Your task to perform on an android device: find which apps use the phone's location Image 0: 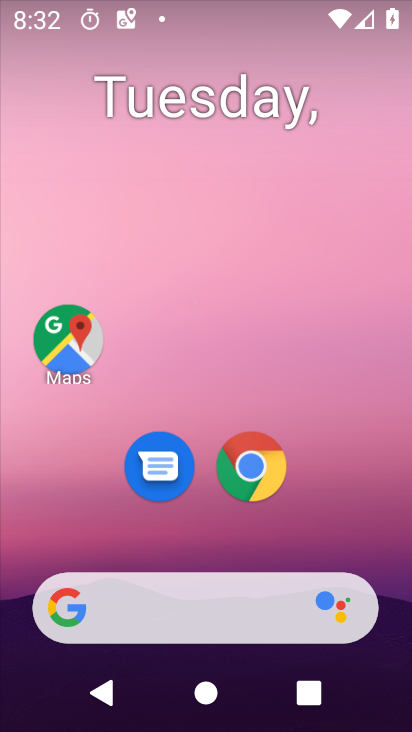
Step 0: drag from (196, 530) to (231, 77)
Your task to perform on an android device: find which apps use the phone's location Image 1: 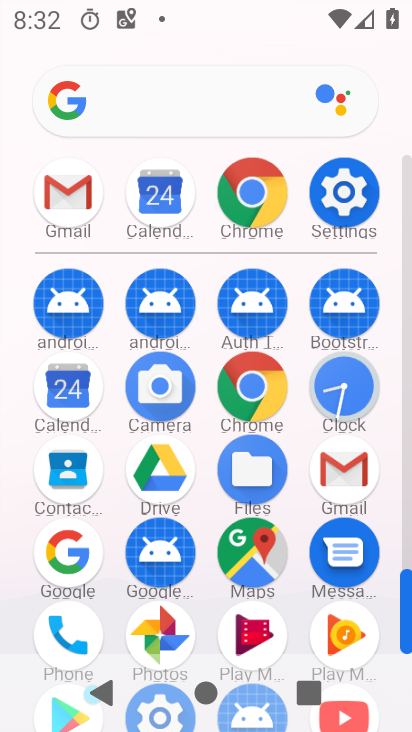
Step 1: click (336, 206)
Your task to perform on an android device: find which apps use the phone's location Image 2: 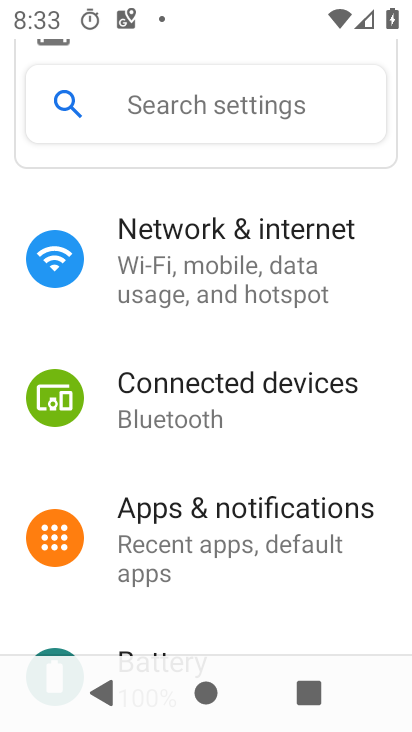
Step 2: drag from (291, 542) to (336, 153)
Your task to perform on an android device: find which apps use the phone's location Image 3: 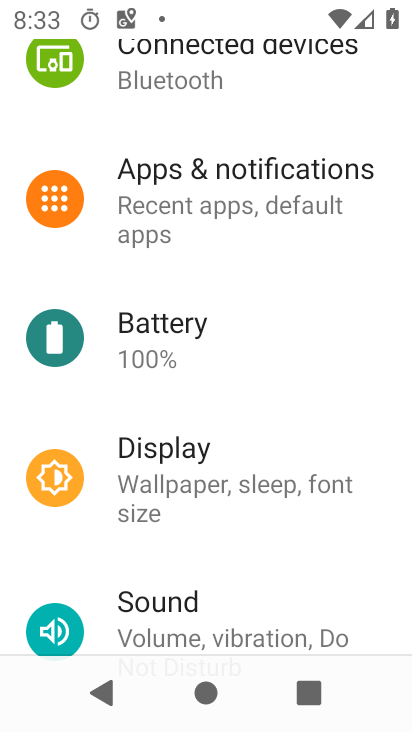
Step 3: drag from (279, 503) to (299, 201)
Your task to perform on an android device: find which apps use the phone's location Image 4: 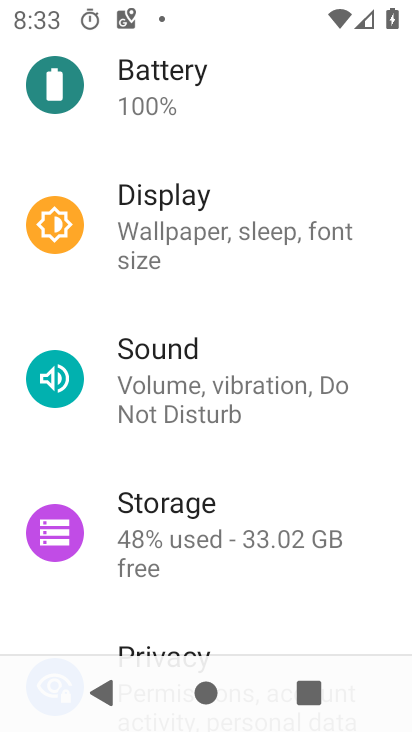
Step 4: drag from (287, 578) to (299, 227)
Your task to perform on an android device: find which apps use the phone's location Image 5: 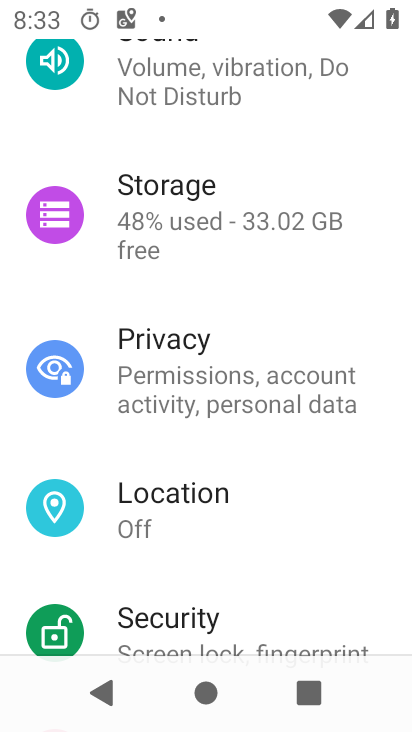
Step 5: click (231, 511)
Your task to perform on an android device: find which apps use the phone's location Image 6: 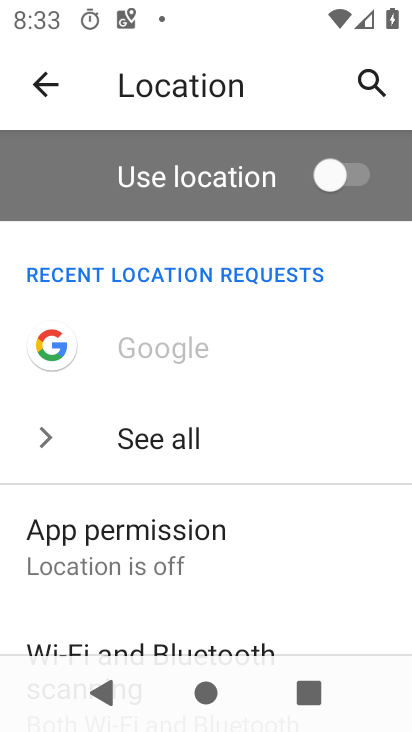
Step 6: drag from (192, 558) to (204, 389)
Your task to perform on an android device: find which apps use the phone's location Image 7: 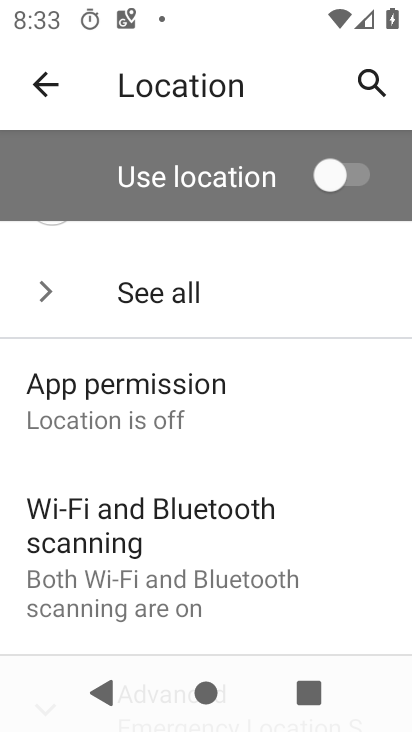
Step 7: click (176, 413)
Your task to perform on an android device: find which apps use the phone's location Image 8: 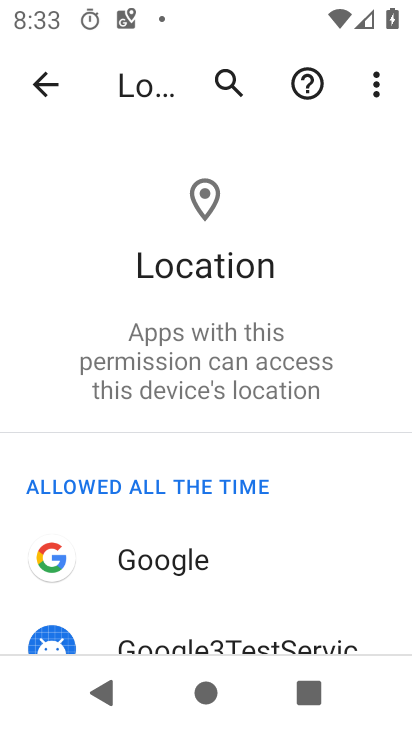
Step 8: task complete